Your task to perform on an android device: turn on airplane mode Image 0: 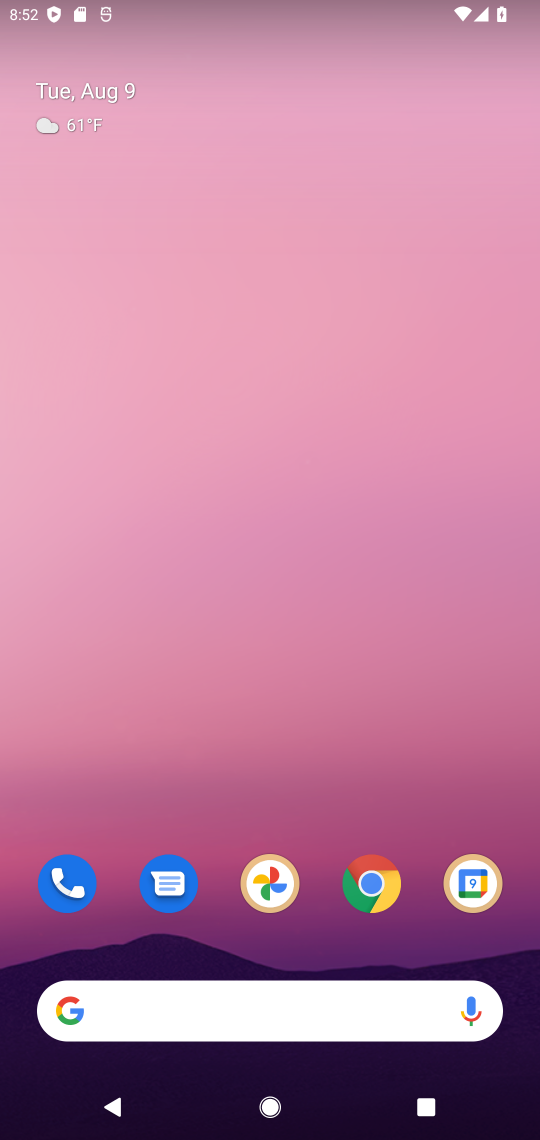
Step 0: drag from (216, 701) to (539, 976)
Your task to perform on an android device: turn on airplane mode Image 1: 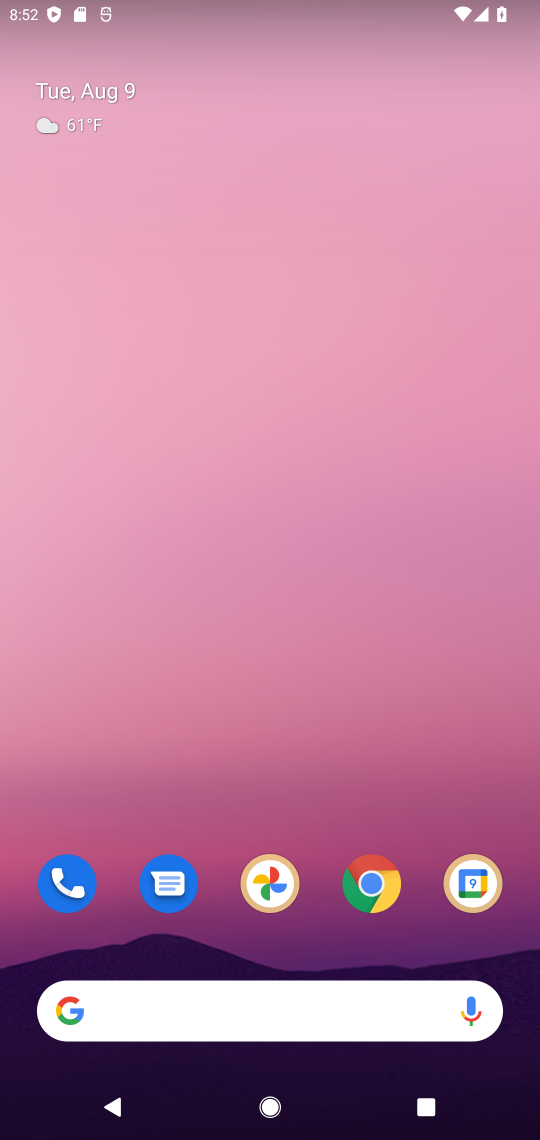
Step 1: drag from (301, 704) to (155, 0)
Your task to perform on an android device: turn on airplane mode Image 2: 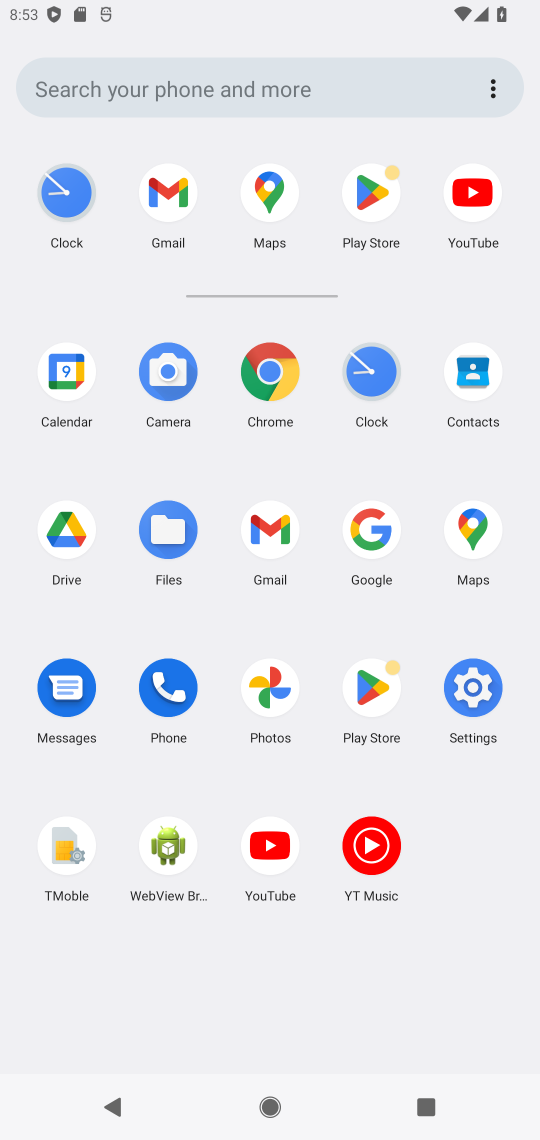
Step 2: click (473, 682)
Your task to perform on an android device: turn on airplane mode Image 3: 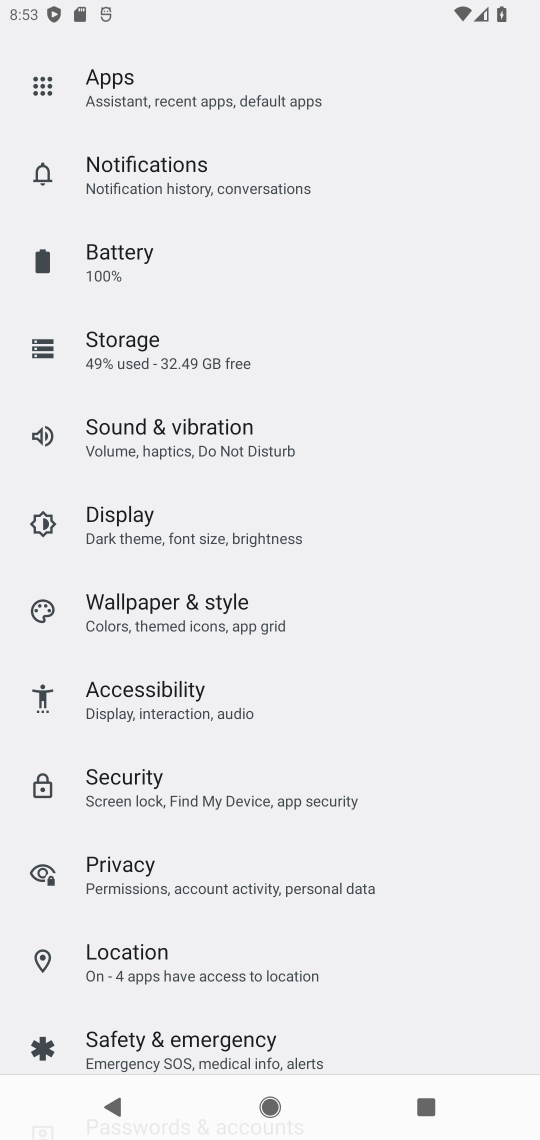
Step 3: drag from (382, 175) to (277, 981)
Your task to perform on an android device: turn on airplane mode Image 4: 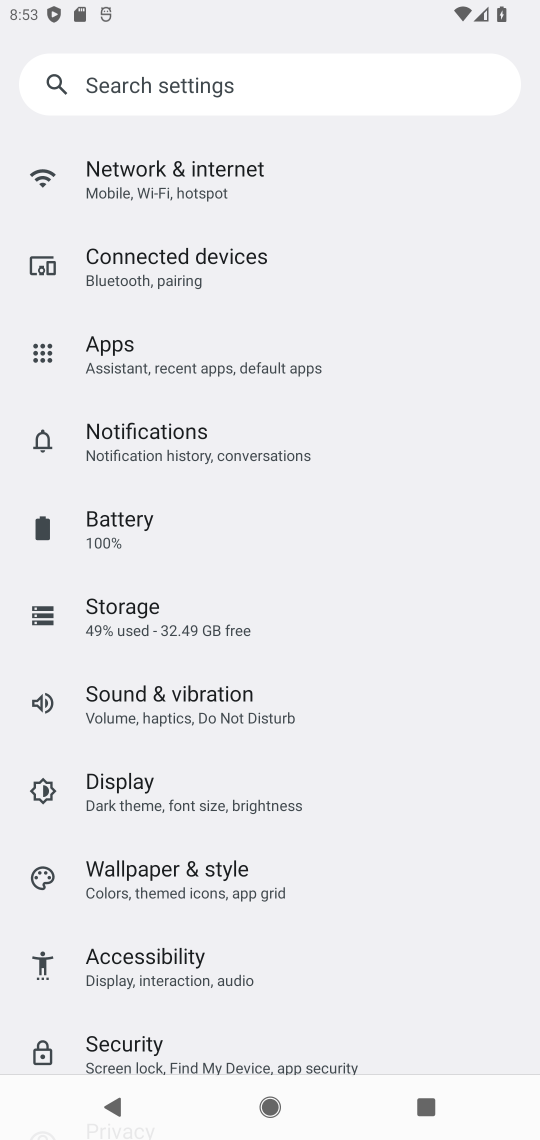
Step 4: click (243, 182)
Your task to perform on an android device: turn on airplane mode Image 5: 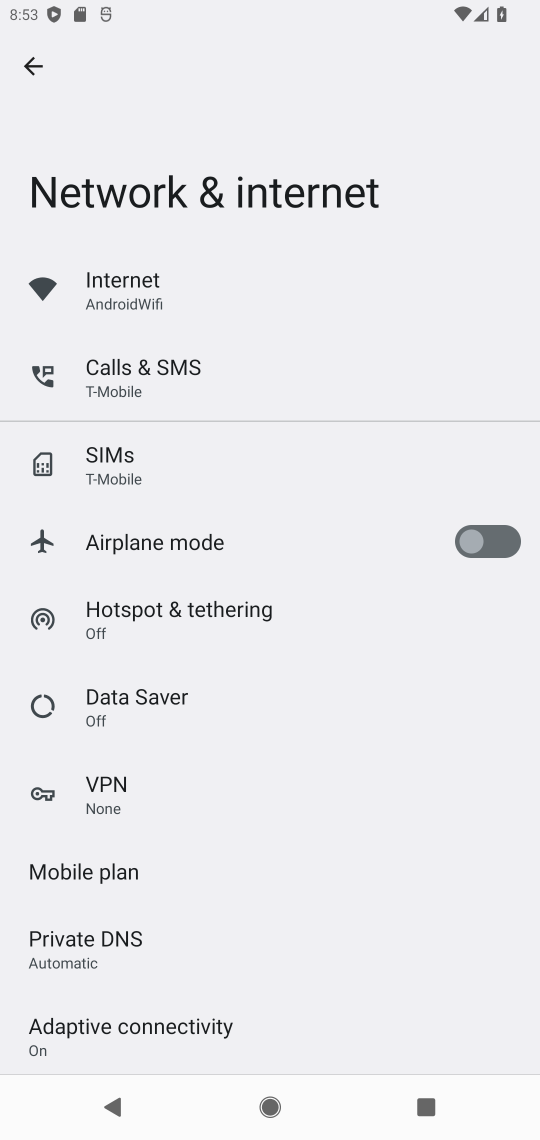
Step 5: click (500, 558)
Your task to perform on an android device: turn on airplane mode Image 6: 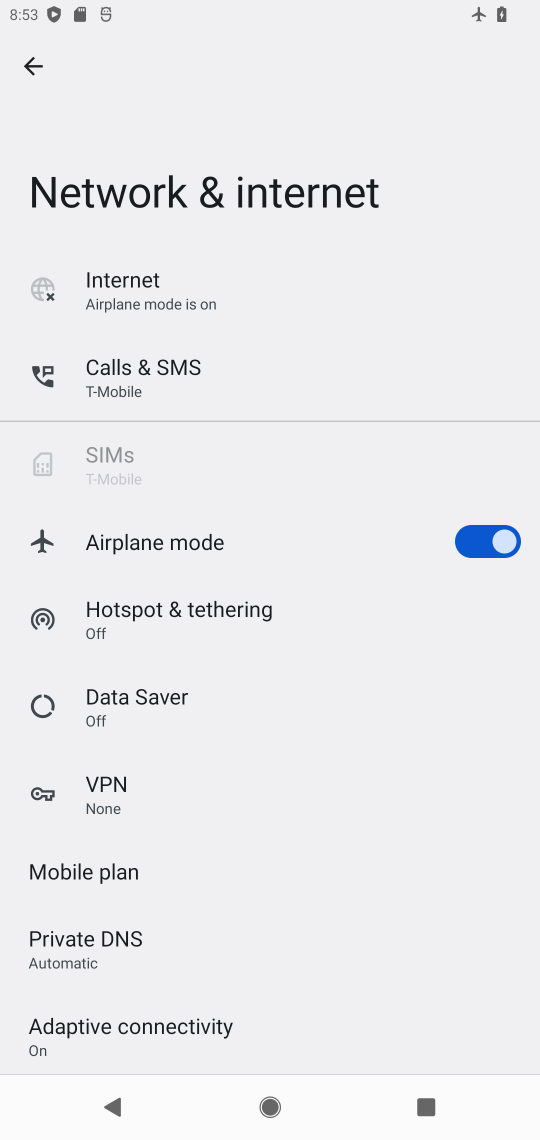
Step 6: task complete